Your task to perform on an android device: turn on sleep mode Image 0: 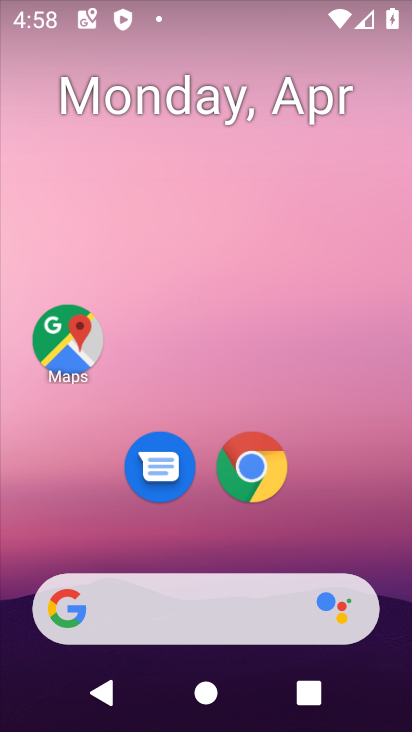
Step 0: drag from (242, 554) to (339, 3)
Your task to perform on an android device: turn on sleep mode Image 1: 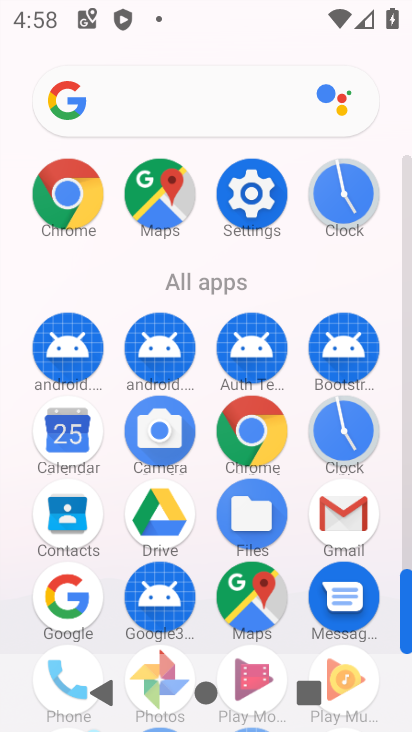
Step 1: click (264, 179)
Your task to perform on an android device: turn on sleep mode Image 2: 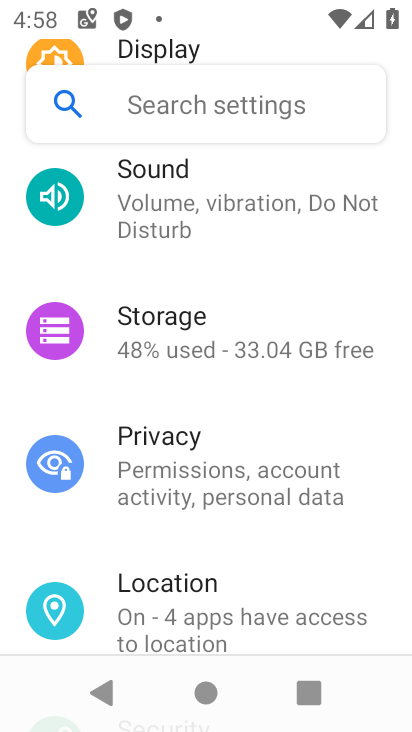
Step 2: task complete